Your task to perform on an android device: toggle priority inbox in the gmail app Image 0: 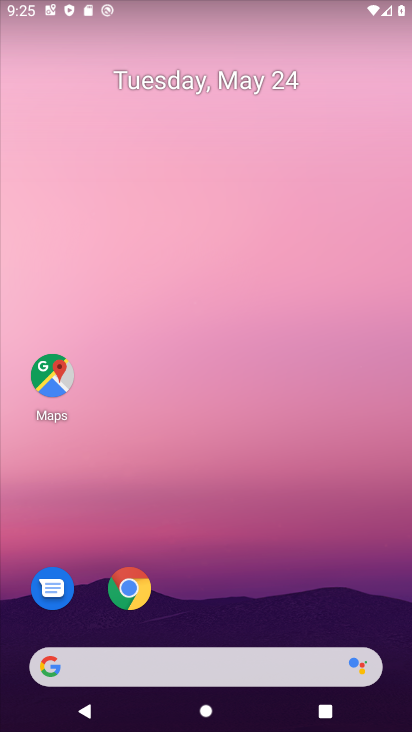
Step 0: drag from (213, 497) to (284, 21)
Your task to perform on an android device: toggle priority inbox in the gmail app Image 1: 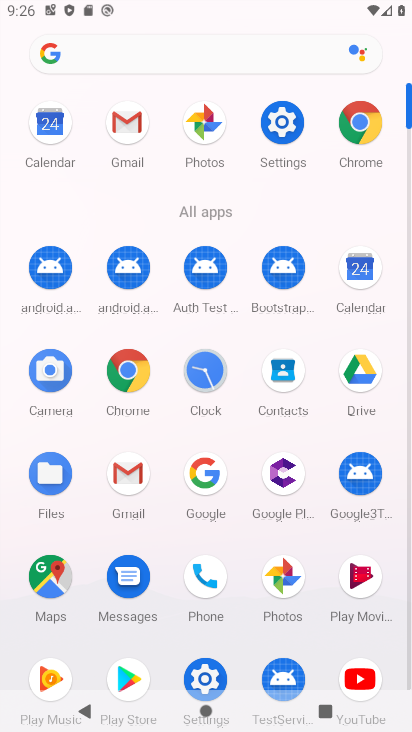
Step 1: click (130, 123)
Your task to perform on an android device: toggle priority inbox in the gmail app Image 2: 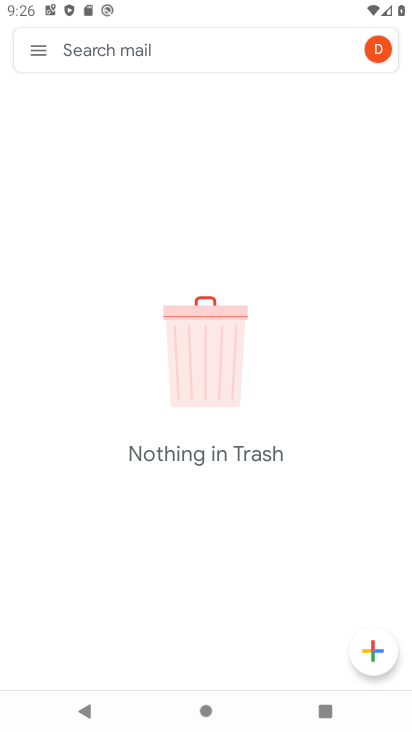
Step 2: click (37, 49)
Your task to perform on an android device: toggle priority inbox in the gmail app Image 3: 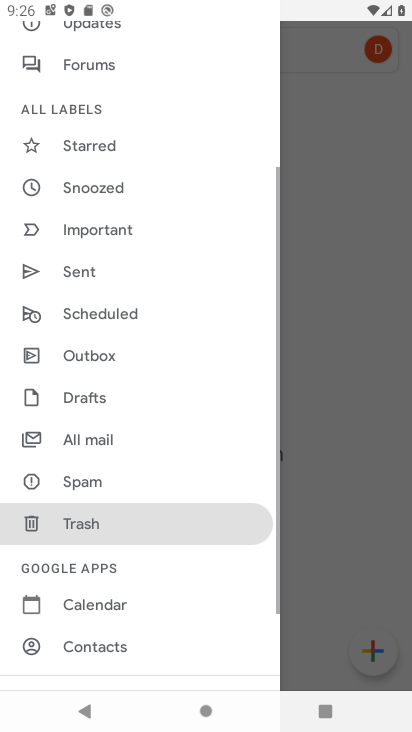
Step 3: drag from (135, 616) to (217, 52)
Your task to perform on an android device: toggle priority inbox in the gmail app Image 4: 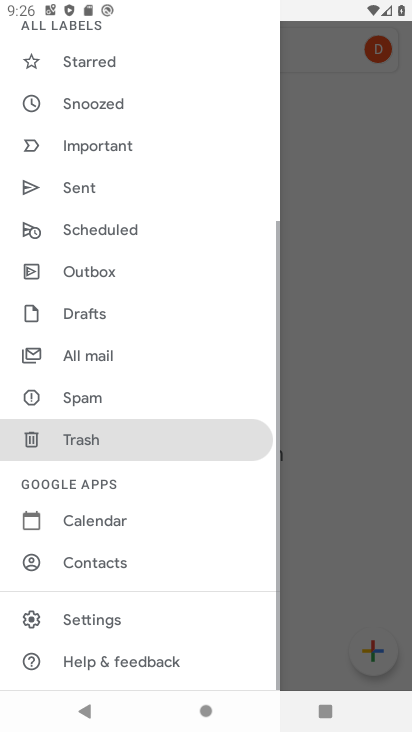
Step 4: click (97, 617)
Your task to perform on an android device: toggle priority inbox in the gmail app Image 5: 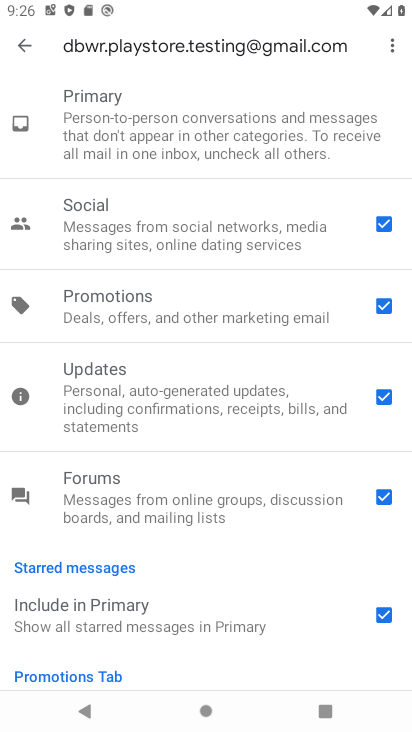
Step 5: click (13, 48)
Your task to perform on an android device: toggle priority inbox in the gmail app Image 6: 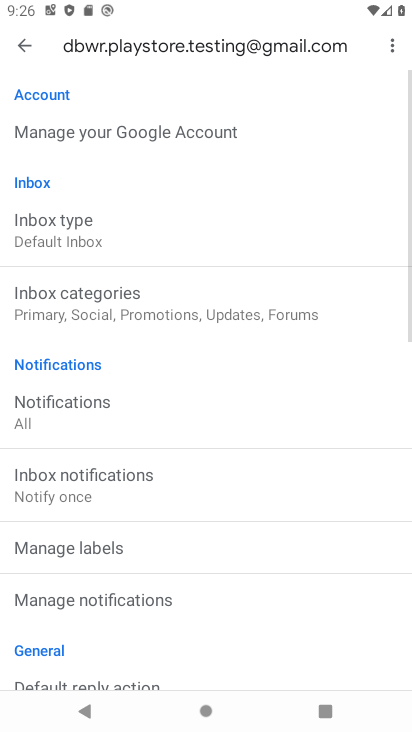
Step 6: click (112, 236)
Your task to perform on an android device: toggle priority inbox in the gmail app Image 7: 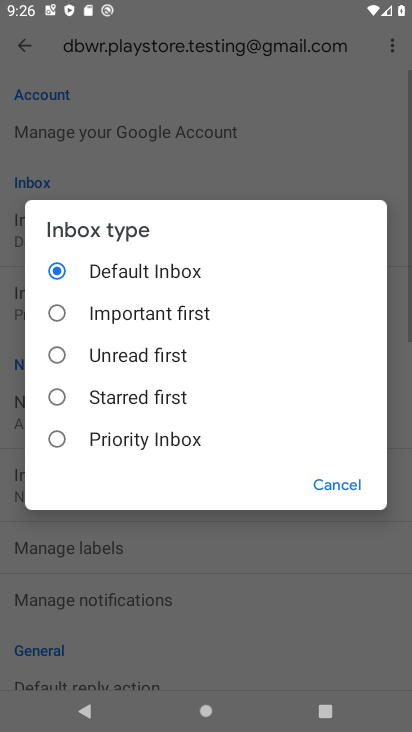
Step 7: click (55, 442)
Your task to perform on an android device: toggle priority inbox in the gmail app Image 8: 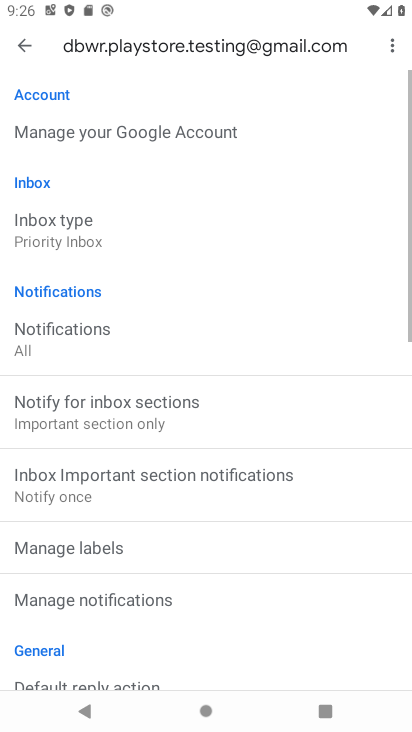
Step 8: task complete